Your task to perform on an android device: allow notifications from all sites in the chrome app Image 0: 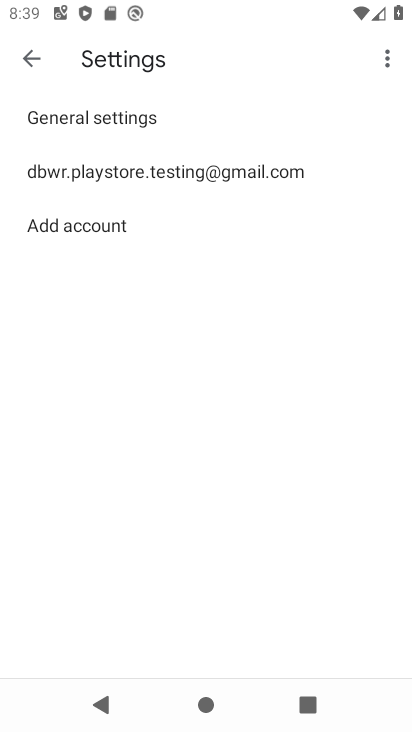
Step 0: press home button
Your task to perform on an android device: allow notifications from all sites in the chrome app Image 1: 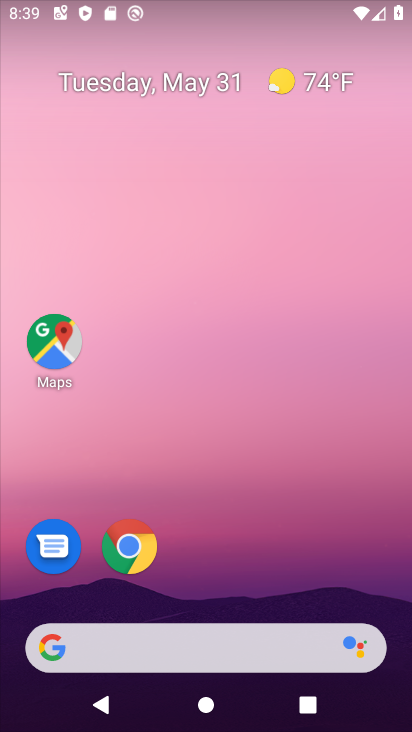
Step 1: click (121, 549)
Your task to perform on an android device: allow notifications from all sites in the chrome app Image 2: 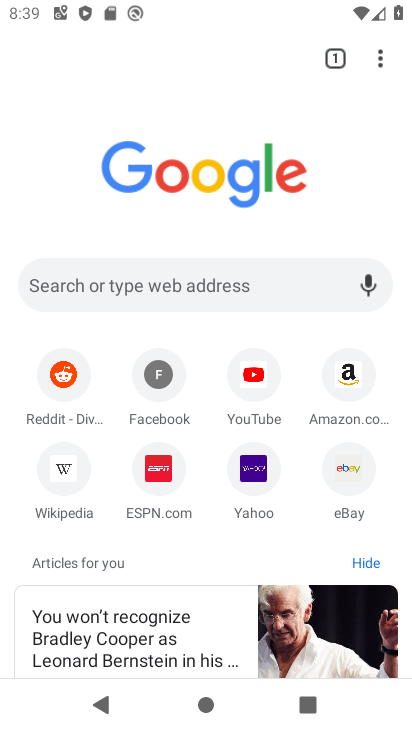
Step 2: click (381, 51)
Your task to perform on an android device: allow notifications from all sites in the chrome app Image 3: 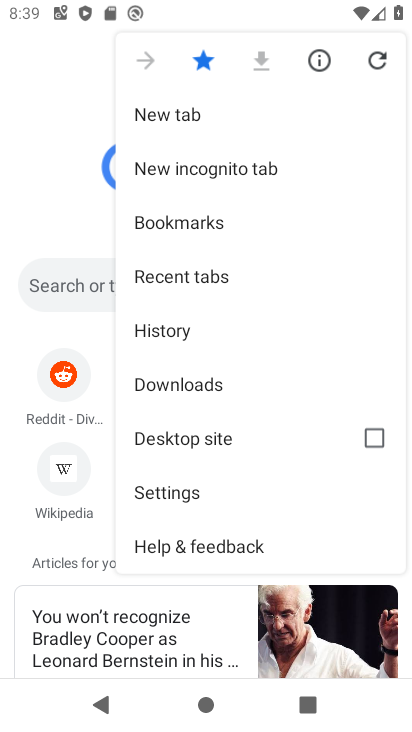
Step 3: click (277, 497)
Your task to perform on an android device: allow notifications from all sites in the chrome app Image 4: 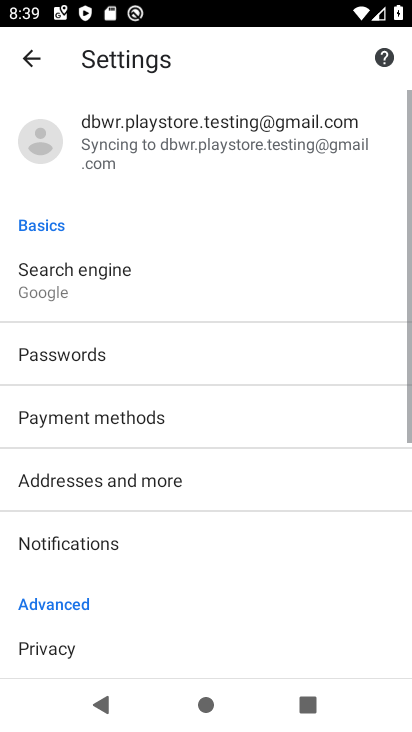
Step 4: drag from (188, 611) to (260, 130)
Your task to perform on an android device: allow notifications from all sites in the chrome app Image 5: 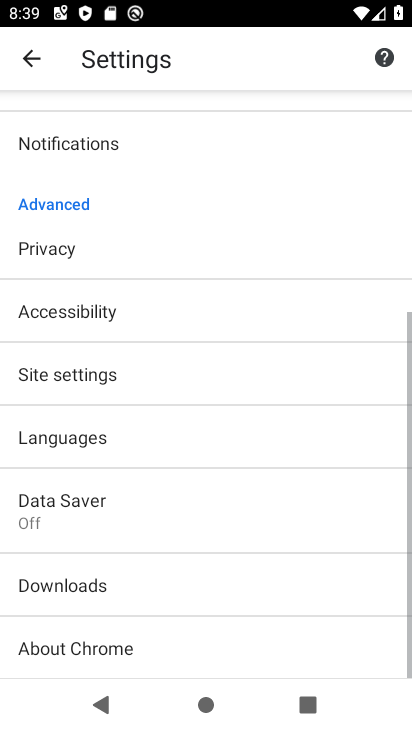
Step 5: click (148, 381)
Your task to perform on an android device: allow notifications from all sites in the chrome app Image 6: 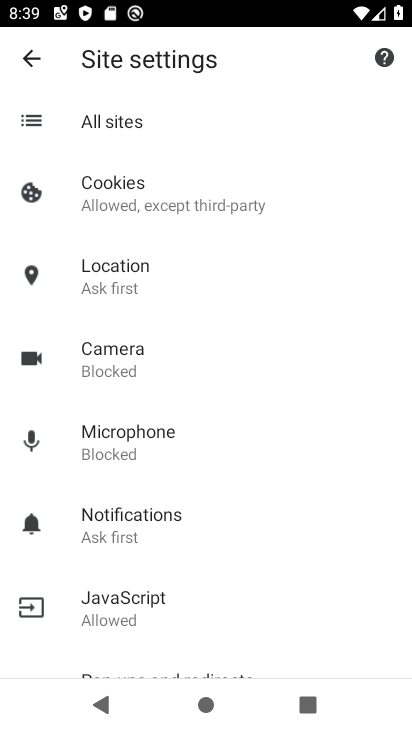
Step 6: click (193, 528)
Your task to perform on an android device: allow notifications from all sites in the chrome app Image 7: 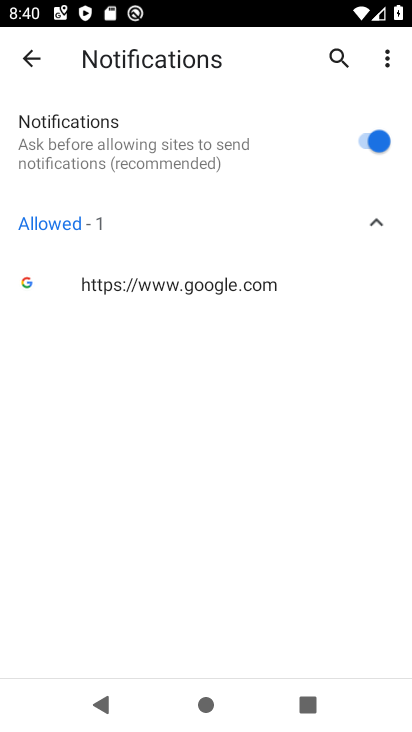
Step 7: task complete